Your task to perform on an android device: Open the map Image 0: 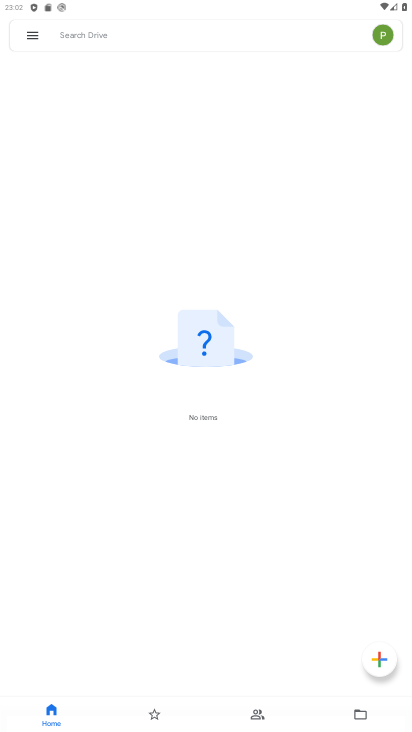
Step 0: press home button
Your task to perform on an android device: Open the map Image 1: 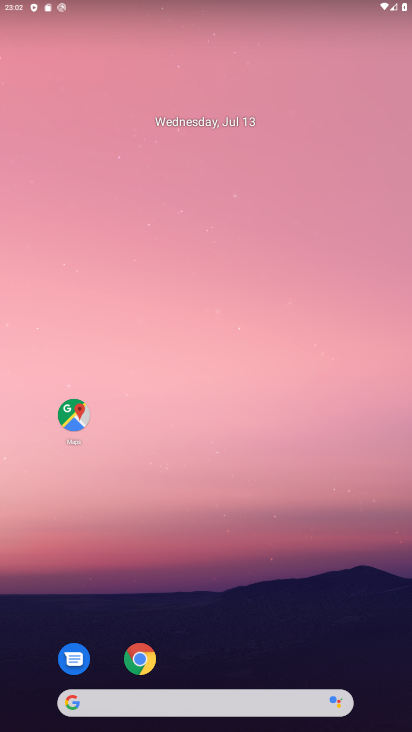
Step 1: click (74, 420)
Your task to perform on an android device: Open the map Image 2: 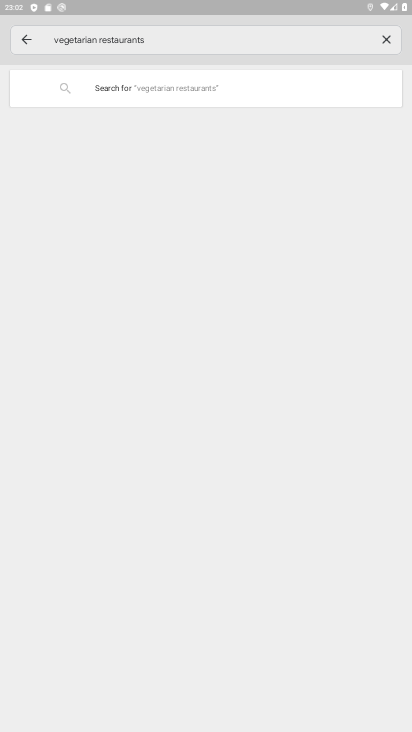
Step 2: click (389, 41)
Your task to perform on an android device: Open the map Image 3: 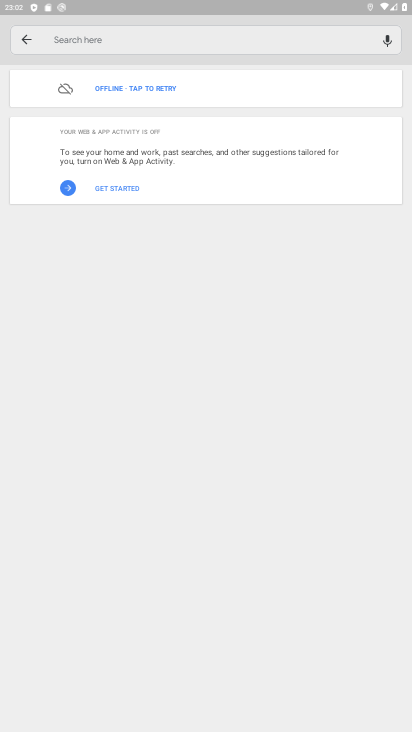
Step 3: task complete